Your task to perform on an android device: Is it going to rain today? Image 0: 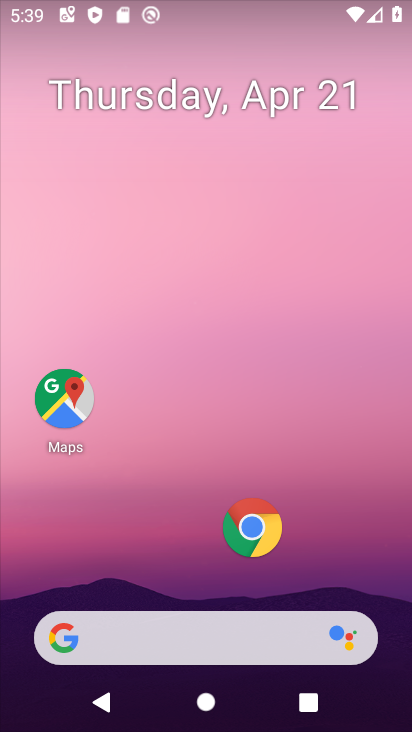
Step 0: click (246, 526)
Your task to perform on an android device: Is it going to rain today? Image 1: 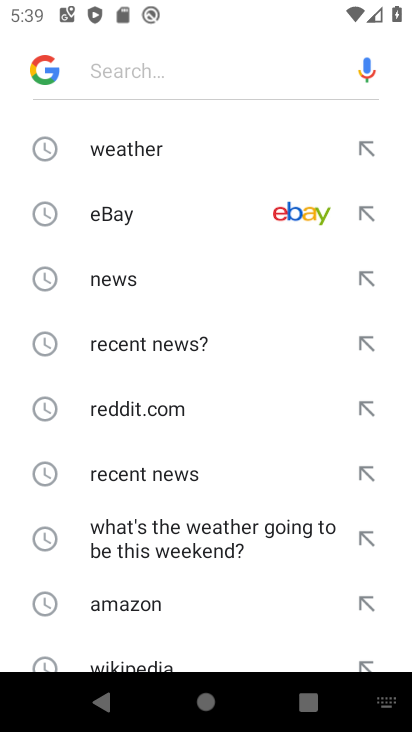
Step 1: press home button
Your task to perform on an android device: Is it going to rain today? Image 2: 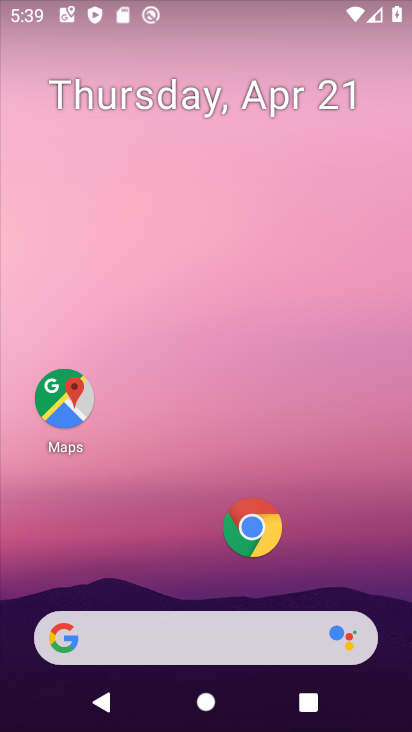
Step 2: click (164, 639)
Your task to perform on an android device: Is it going to rain today? Image 3: 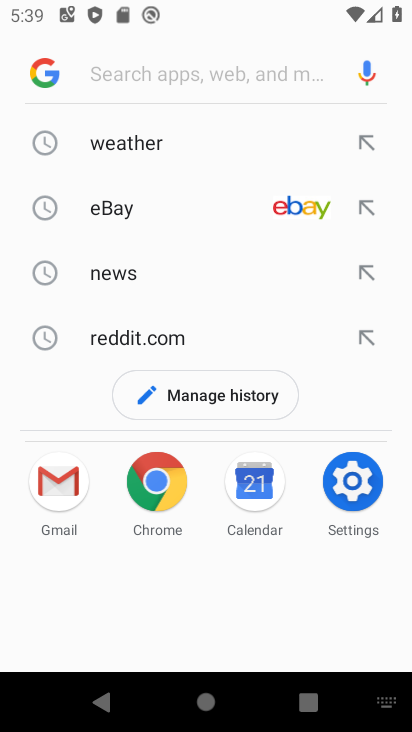
Step 3: click (134, 145)
Your task to perform on an android device: Is it going to rain today? Image 4: 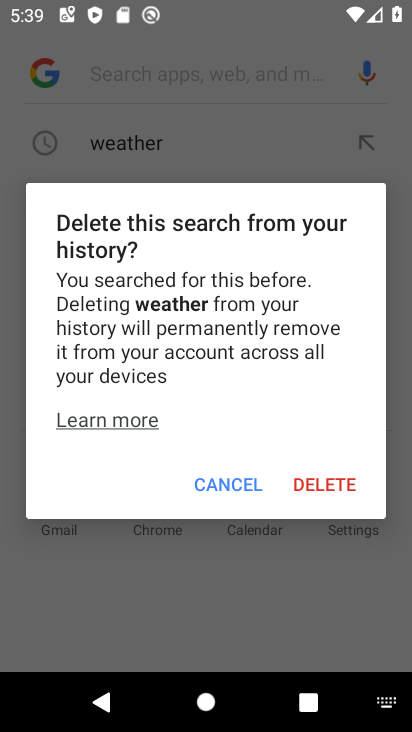
Step 4: click (244, 479)
Your task to perform on an android device: Is it going to rain today? Image 5: 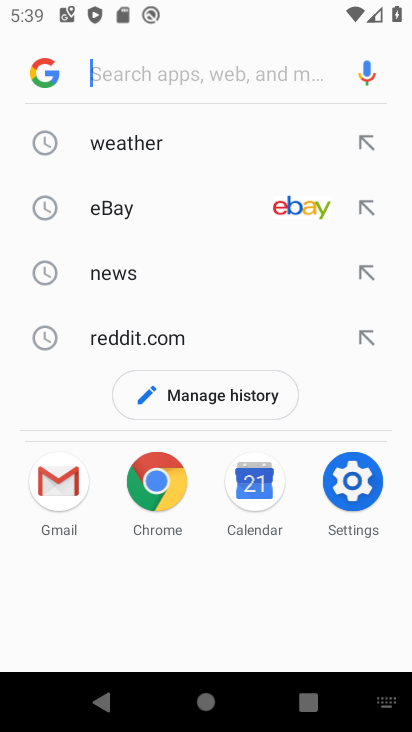
Step 5: click (123, 142)
Your task to perform on an android device: Is it going to rain today? Image 6: 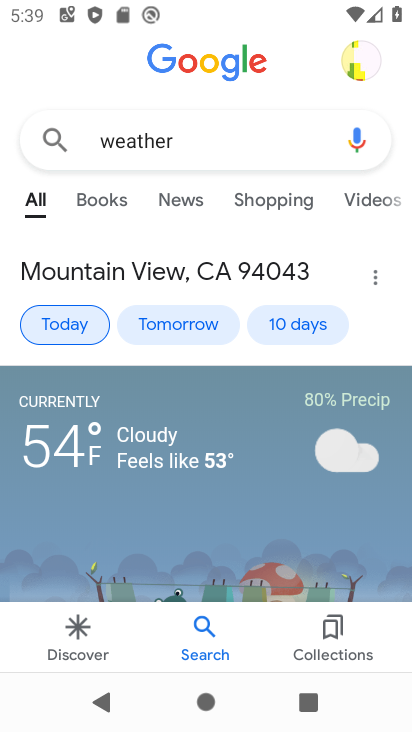
Step 6: task complete